Your task to perform on an android device: Open calendar and show me the third week of next month Image 0: 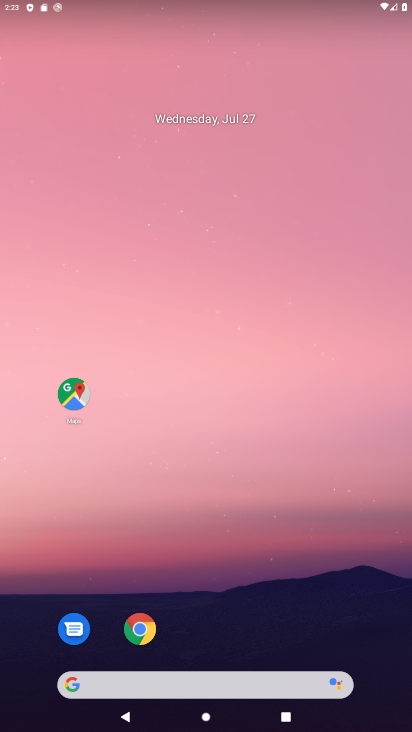
Step 0: click (160, 119)
Your task to perform on an android device: Open calendar and show me the third week of next month Image 1: 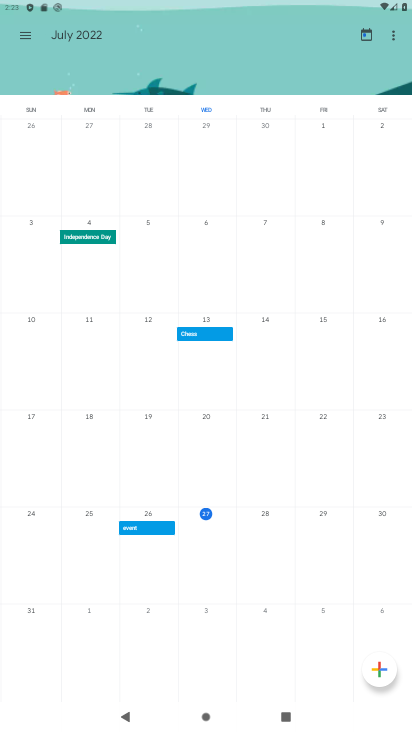
Step 1: click (15, 33)
Your task to perform on an android device: Open calendar and show me the third week of next month Image 2: 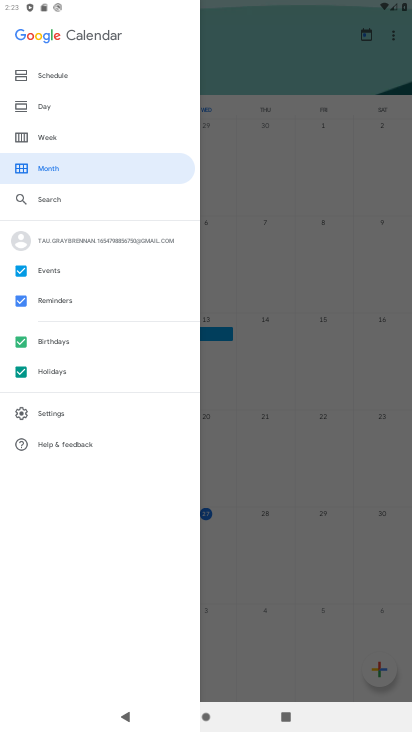
Step 2: click (106, 139)
Your task to perform on an android device: Open calendar and show me the third week of next month Image 3: 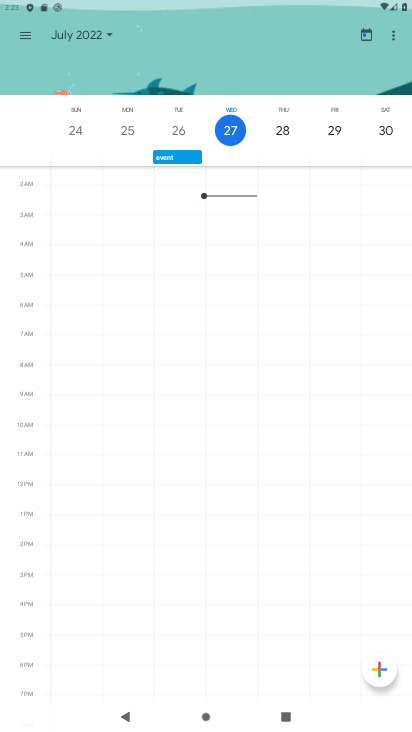
Step 3: click (289, 52)
Your task to perform on an android device: Open calendar and show me the third week of next month Image 4: 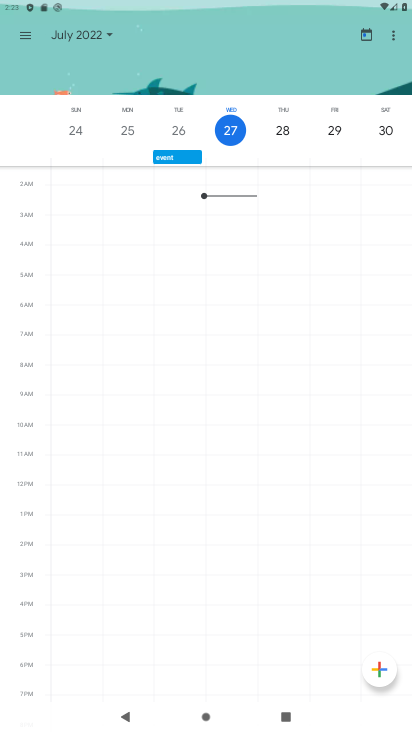
Step 4: click (289, 52)
Your task to perform on an android device: Open calendar and show me the third week of next month Image 5: 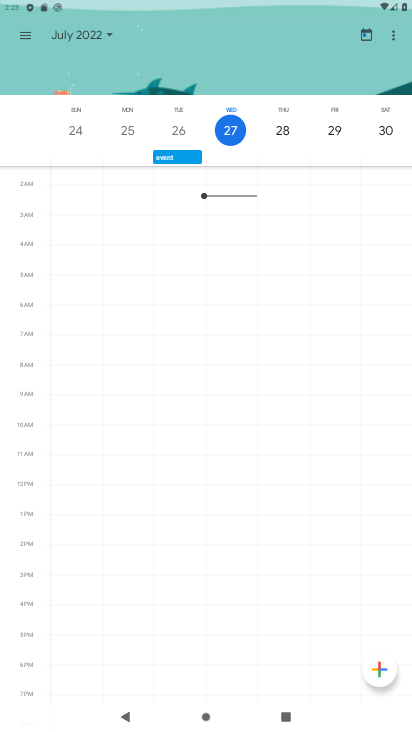
Step 5: drag from (207, 55) to (219, 363)
Your task to perform on an android device: Open calendar and show me the third week of next month Image 6: 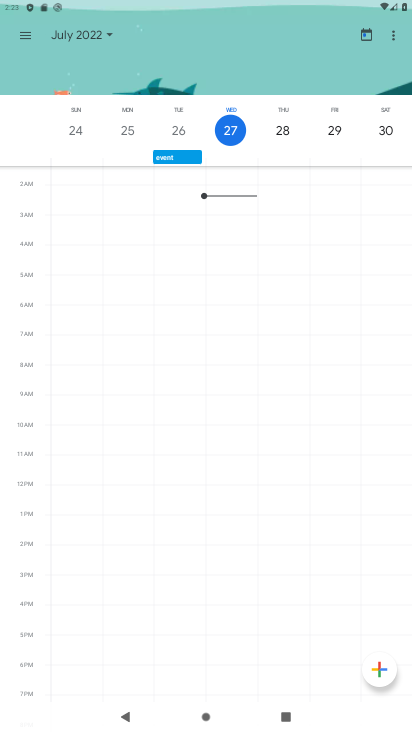
Step 6: click (208, 70)
Your task to perform on an android device: Open calendar and show me the third week of next month Image 7: 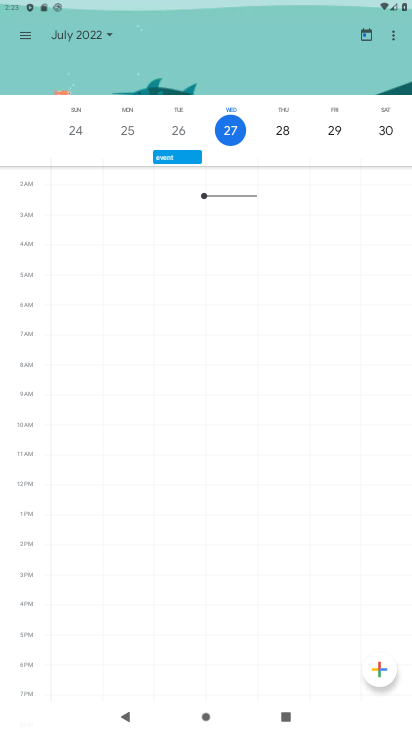
Step 7: click (208, 70)
Your task to perform on an android device: Open calendar and show me the third week of next month Image 8: 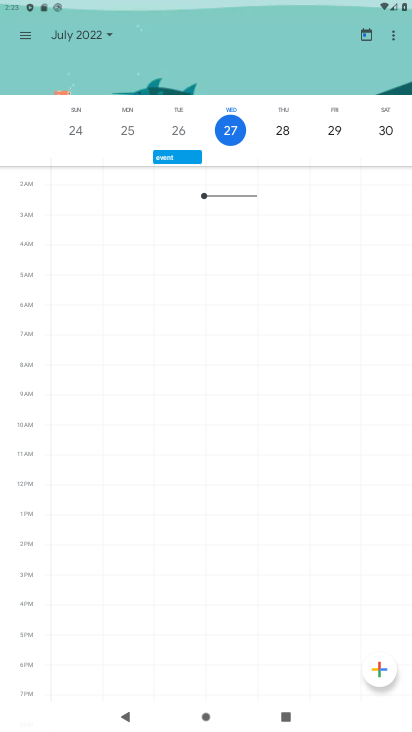
Step 8: click (208, 70)
Your task to perform on an android device: Open calendar and show me the third week of next month Image 9: 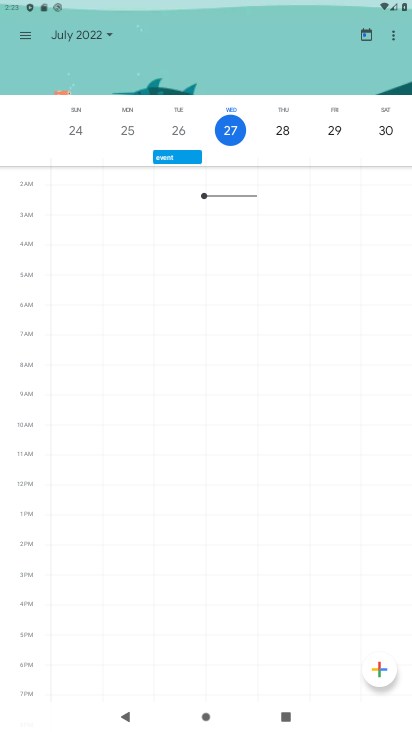
Step 9: click (112, 82)
Your task to perform on an android device: Open calendar and show me the third week of next month Image 10: 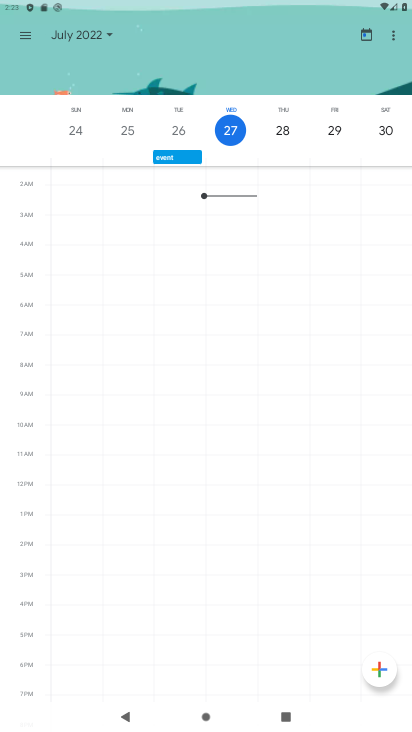
Step 10: drag from (193, 58) to (261, 623)
Your task to perform on an android device: Open calendar and show me the third week of next month Image 11: 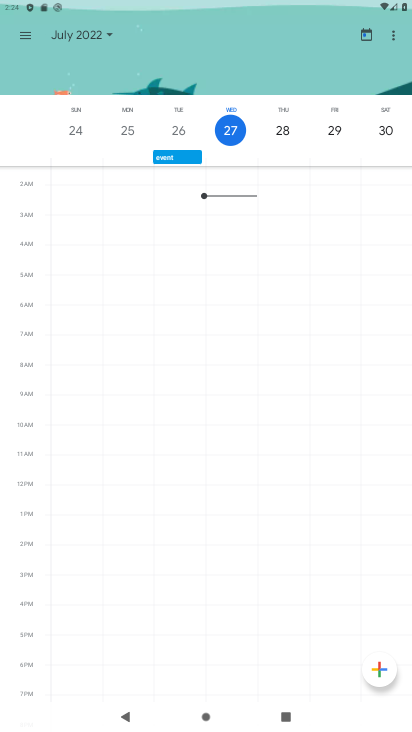
Step 11: click (331, 23)
Your task to perform on an android device: Open calendar and show me the third week of next month Image 12: 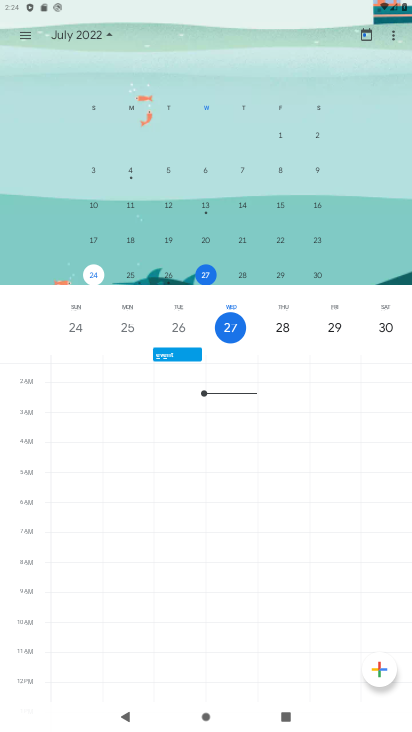
Step 12: drag from (309, 53) to (276, 602)
Your task to perform on an android device: Open calendar and show me the third week of next month Image 13: 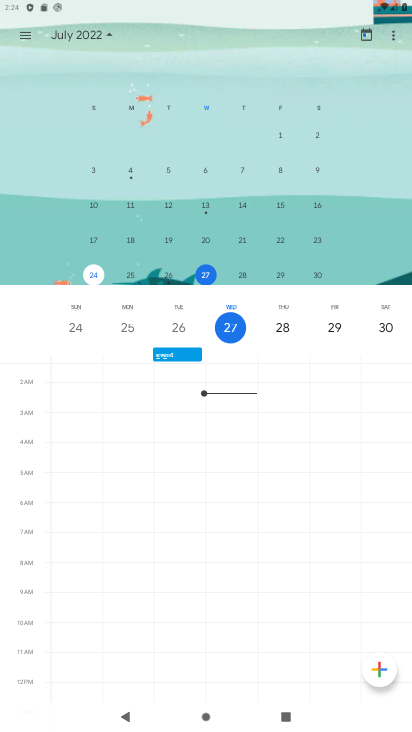
Step 13: drag from (399, 202) to (142, 224)
Your task to perform on an android device: Open calendar and show me the third week of next month Image 14: 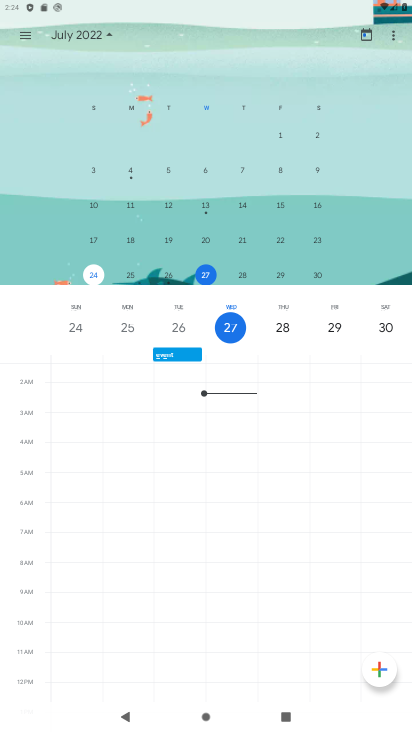
Step 14: drag from (378, 251) to (62, 233)
Your task to perform on an android device: Open calendar and show me the third week of next month Image 15: 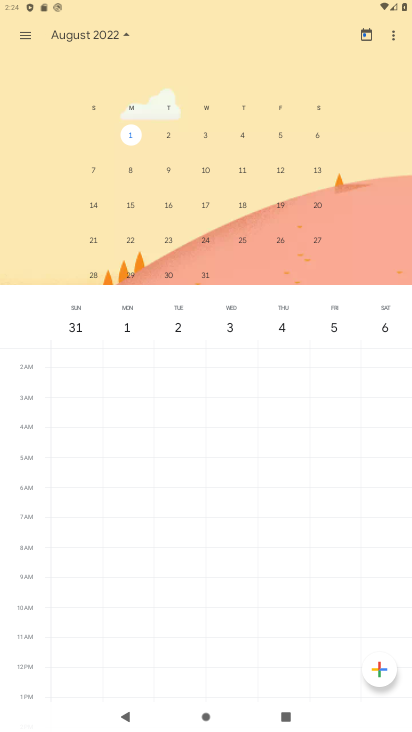
Step 15: click (134, 210)
Your task to perform on an android device: Open calendar and show me the third week of next month Image 16: 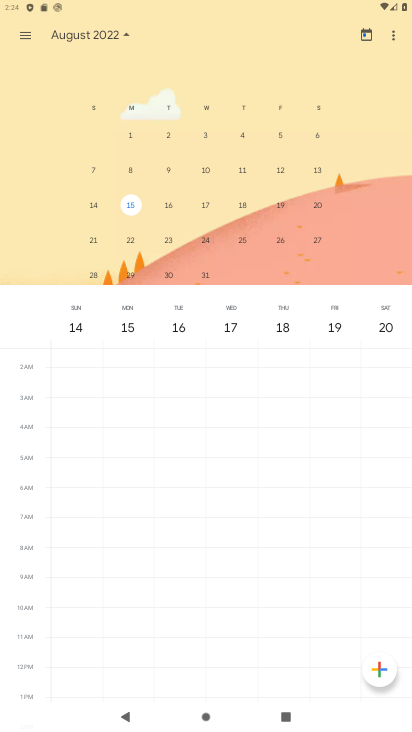
Step 16: task complete